Your task to perform on an android device: turn off notifications settings in the gmail app Image 0: 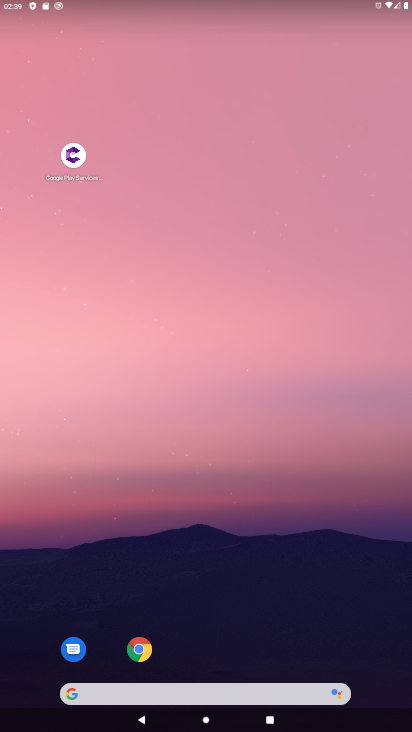
Step 0: drag from (177, 688) to (270, 16)
Your task to perform on an android device: turn off notifications settings in the gmail app Image 1: 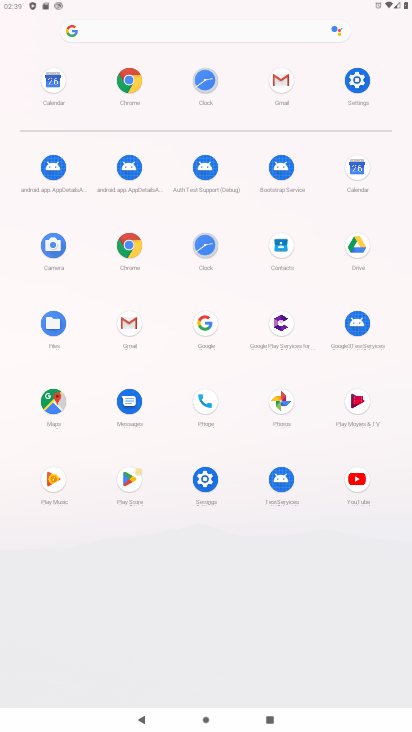
Step 1: click (280, 80)
Your task to perform on an android device: turn off notifications settings in the gmail app Image 2: 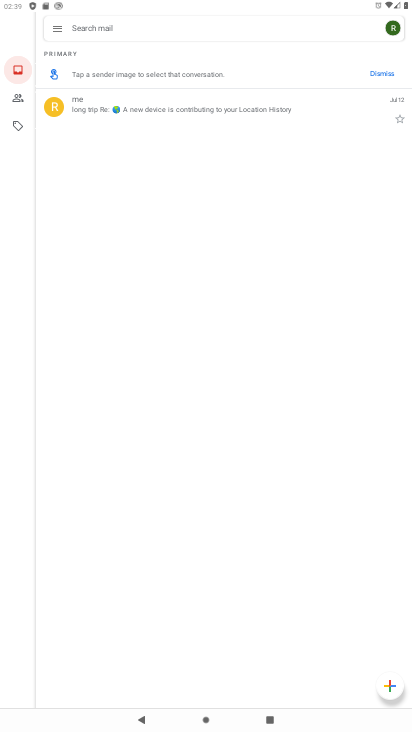
Step 2: click (58, 32)
Your task to perform on an android device: turn off notifications settings in the gmail app Image 3: 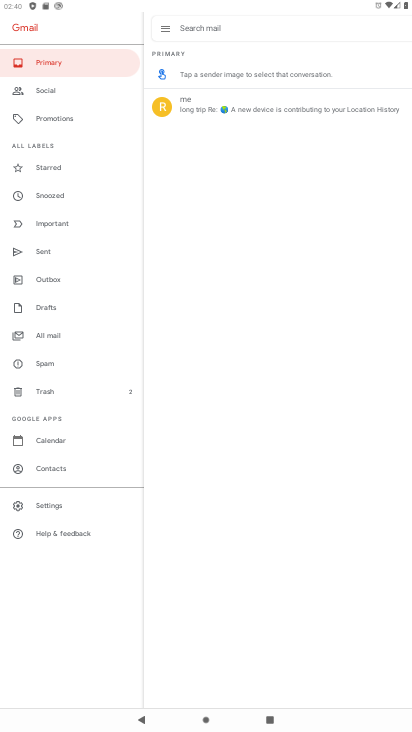
Step 3: click (47, 508)
Your task to perform on an android device: turn off notifications settings in the gmail app Image 4: 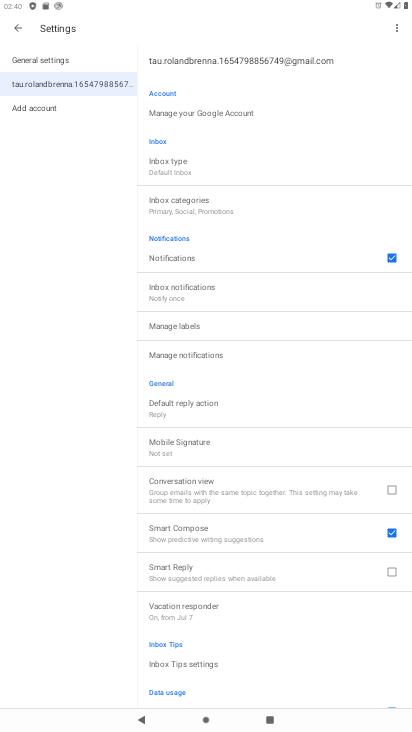
Step 4: click (211, 357)
Your task to perform on an android device: turn off notifications settings in the gmail app Image 5: 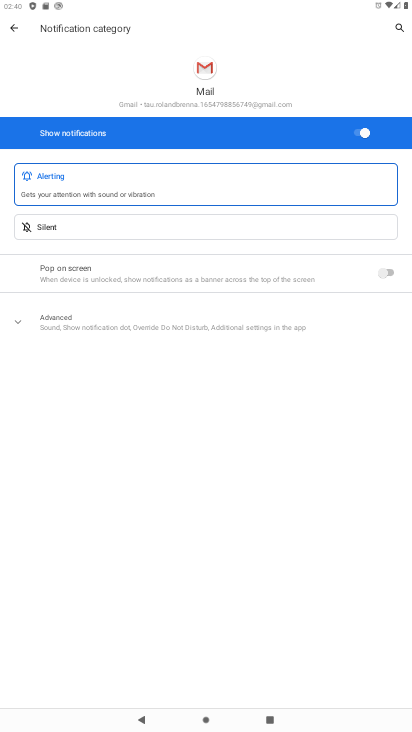
Step 5: click (357, 133)
Your task to perform on an android device: turn off notifications settings in the gmail app Image 6: 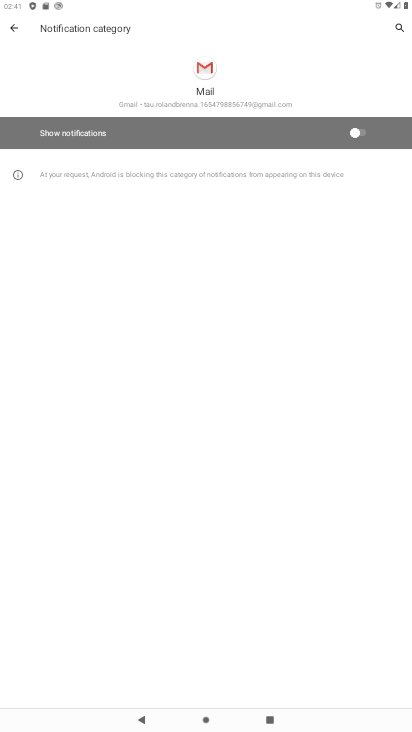
Step 6: task complete